Your task to perform on an android device: open device folders in google photos Image 0: 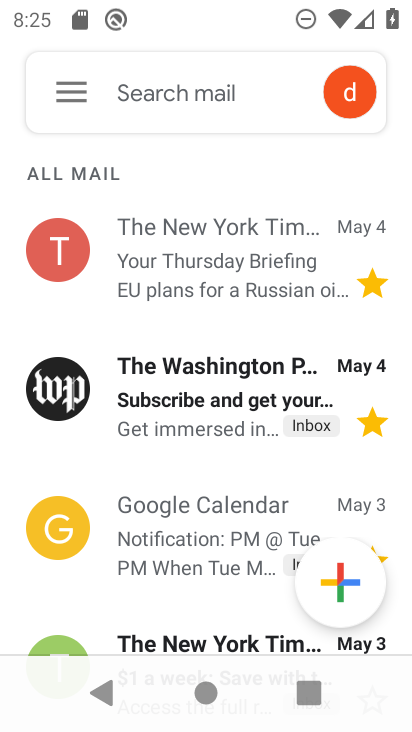
Step 0: press home button
Your task to perform on an android device: open device folders in google photos Image 1: 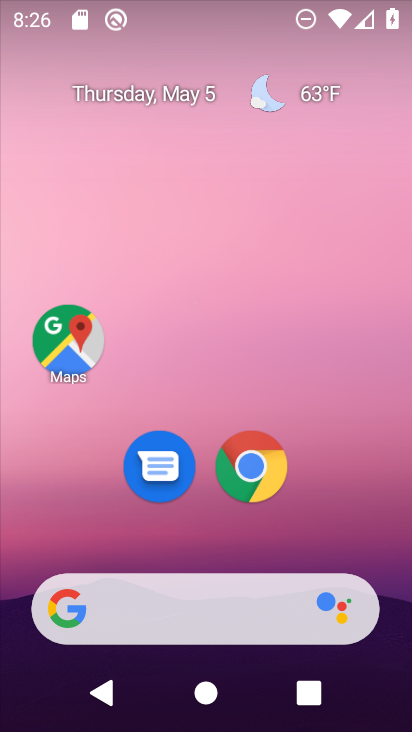
Step 1: drag from (267, 606) to (207, 64)
Your task to perform on an android device: open device folders in google photos Image 2: 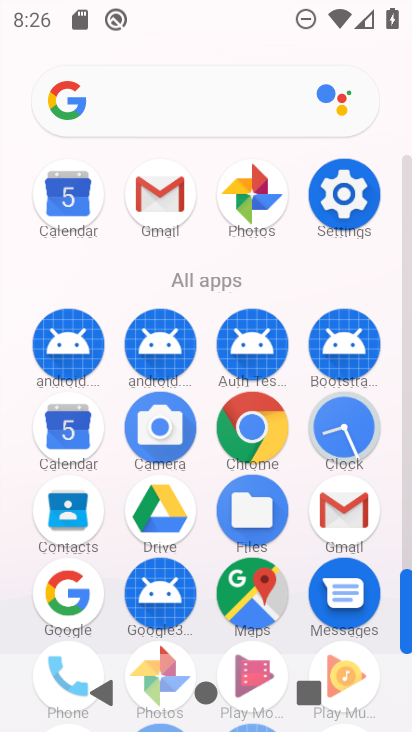
Step 2: click (248, 217)
Your task to perform on an android device: open device folders in google photos Image 3: 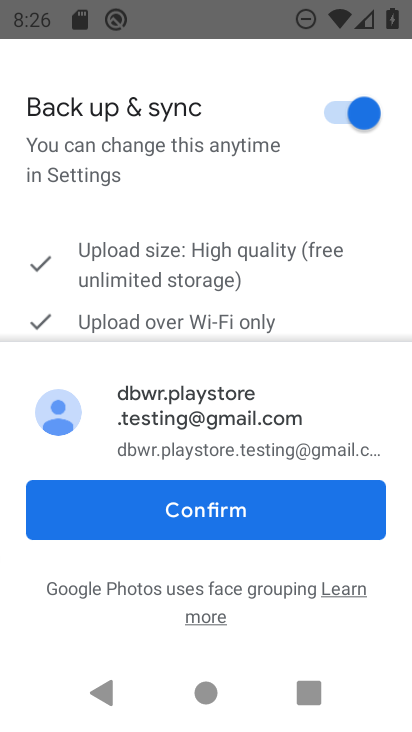
Step 3: click (180, 498)
Your task to perform on an android device: open device folders in google photos Image 4: 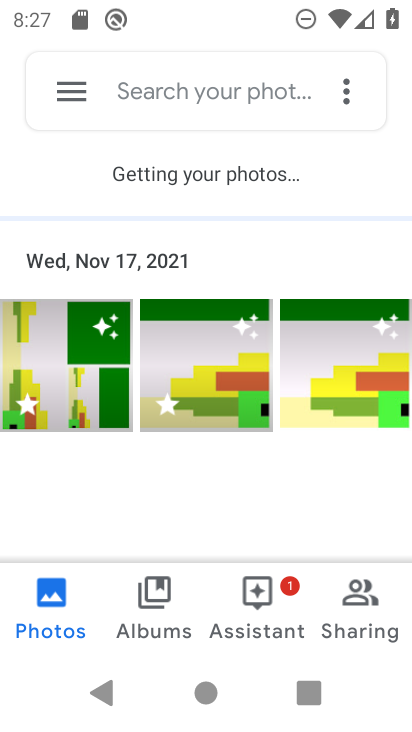
Step 4: click (172, 609)
Your task to perform on an android device: open device folders in google photos Image 5: 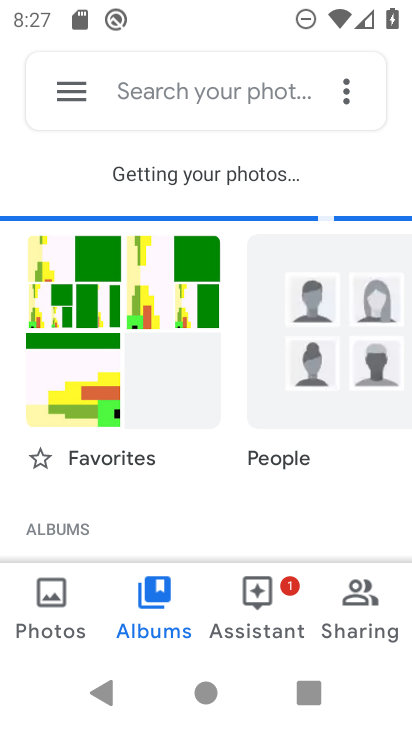
Step 5: task complete